Your task to perform on an android device: Do I have any events tomorrow? Image 0: 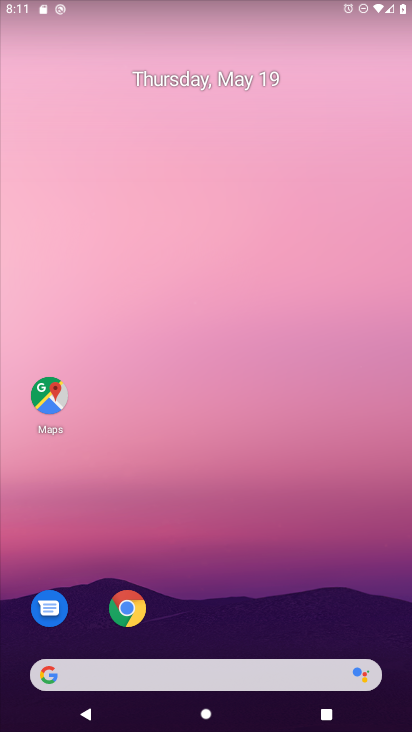
Step 0: drag from (387, 624) to (370, 142)
Your task to perform on an android device: Do I have any events tomorrow? Image 1: 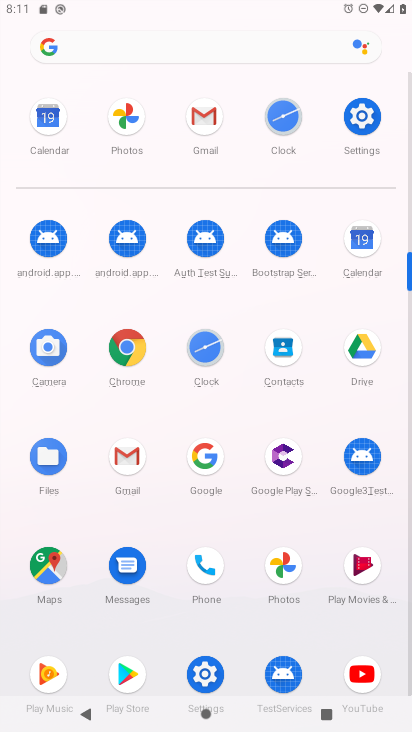
Step 1: click (348, 246)
Your task to perform on an android device: Do I have any events tomorrow? Image 2: 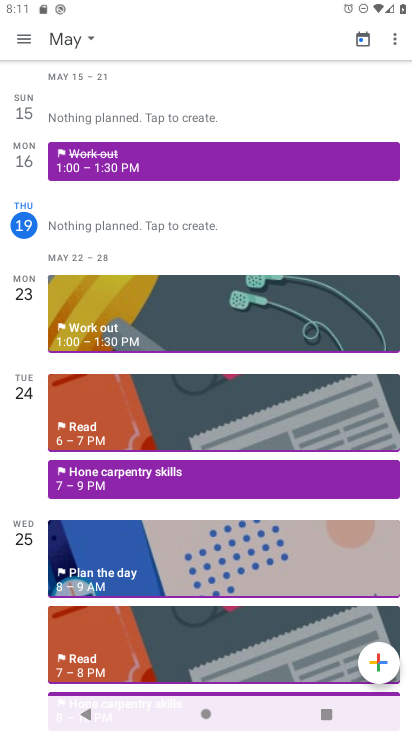
Step 2: click (86, 36)
Your task to perform on an android device: Do I have any events tomorrow? Image 3: 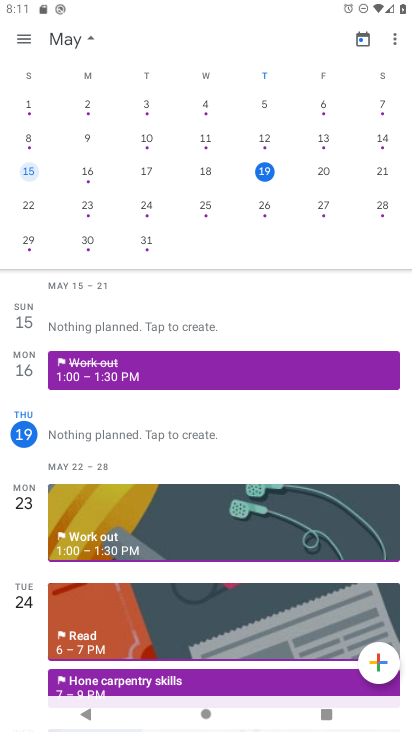
Step 3: click (323, 170)
Your task to perform on an android device: Do I have any events tomorrow? Image 4: 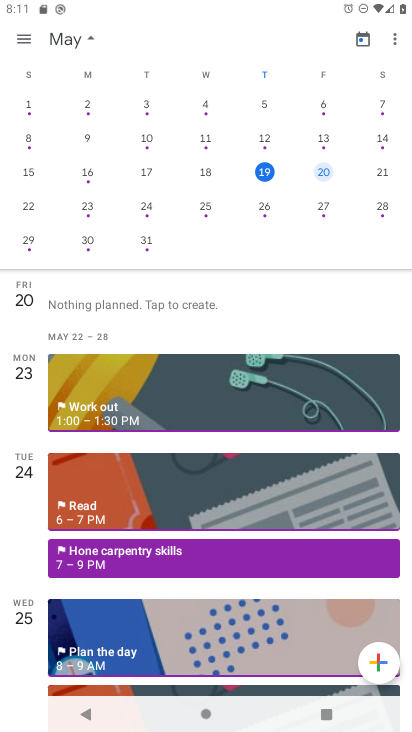
Step 4: task complete